Your task to perform on an android device: Search for "macbook air" on ebay.com, select the first entry, add it to the cart, then select checkout. Image 0: 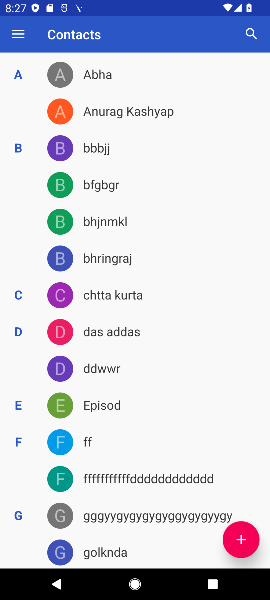
Step 0: press home button
Your task to perform on an android device: Search for "macbook air" on ebay.com, select the first entry, add it to the cart, then select checkout. Image 1: 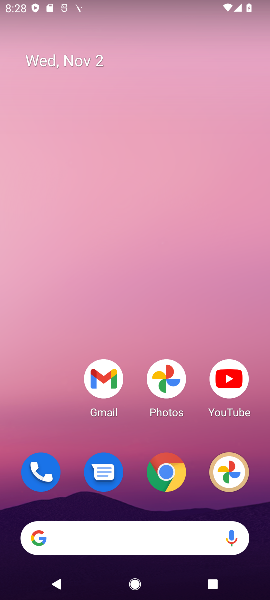
Step 1: click (165, 476)
Your task to perform on an android device: Search for "macbook air" on ebay.com, select the first entry, add it to the cart, then select checkout. Image 2: 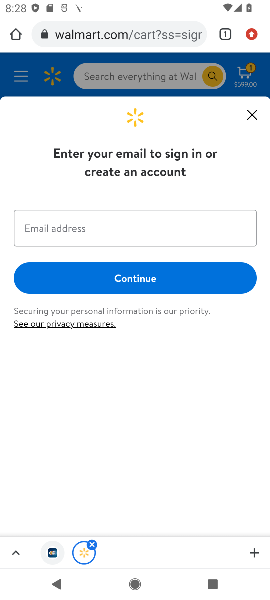
Step 2: click (133, 33)
Your task to perform on an android device: Search for "macbook air" on ebay.com, select the first entry, add it to the cart, then select checkout. Image 3: 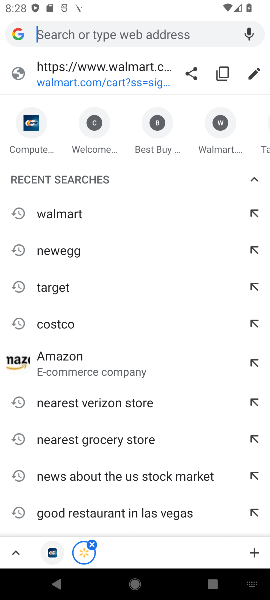
Step 3: type "ebay.com"
Your task to perform on an android device: Search for "macbook air" on ebay.com, select the first entry, add it to the cart, then select checkout. Image 4: 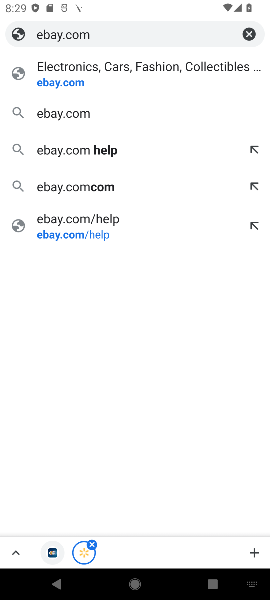
Step 4: click (85, 72)
Your task to perform on an android device: Search for "macbook air" on ebay.com, select the first entry, add it to the cart, then select checkout. Image 5: 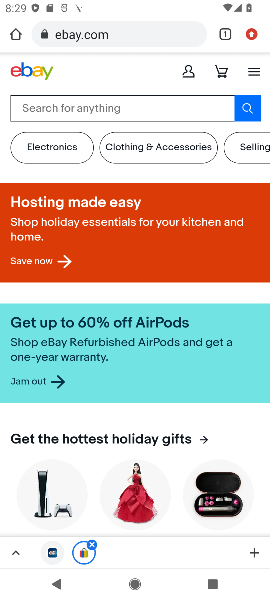
Step 5: click (141, 107)
Your task to perform on an android device: Search for "macbook air" on ebay.com, select the first entry, add it to the cart, then select checkout. Image 6: 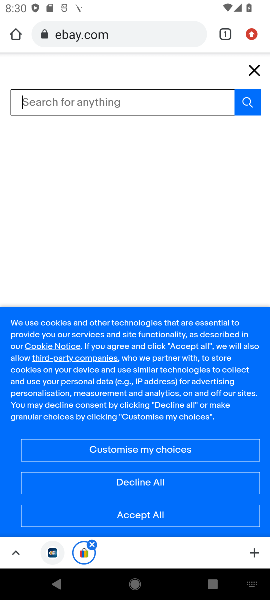
Step 6: type "macbook pro"
Your task to perform on an android device: Search for "macbook air" on ebay.com, select the first entry, add it to the cart, then select checkout. Image 7: 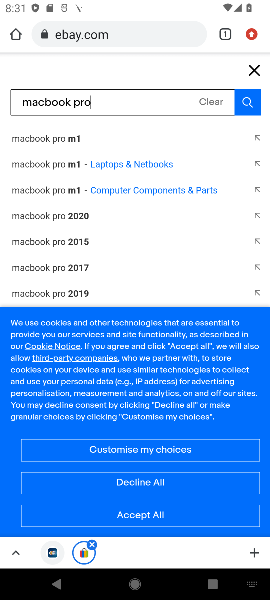
Step 7: click (73, 140)
Your task to perform on an android device: Search for "macbook air" on ebay.com, select the first entry, add it to the cart, then select checkout. Image 8: 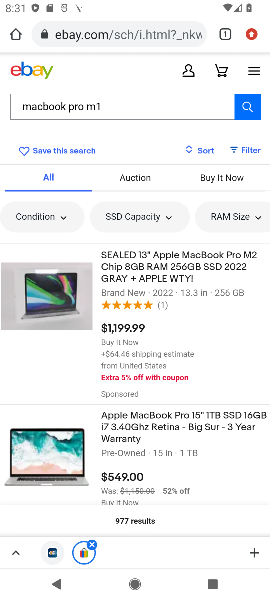
Step 8: click (192, 279)
Your task to perform on an android device: Search for "macbook air" on ebay.com, select the first entry, add it to the cart, then select checkout. Image 9: 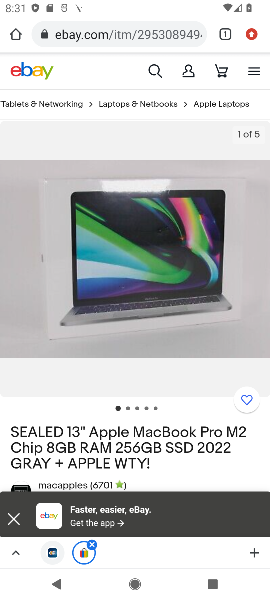
Step 9: drag from (217, 442) to (207, 54)
Your task to perform on an android device: Search for "macbook air" on ebay.com, select the first entry, add it to the cart, then select checkout. Image 10: 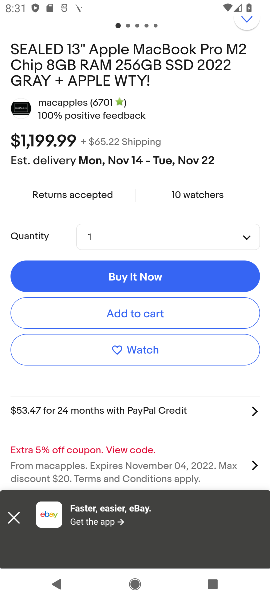
Step 10: click (140, 314)
Your task to perform on an android device: Search for "macbook air" on ebay.com, select the first entry, add it to the cart, then select checkout. Image 11: 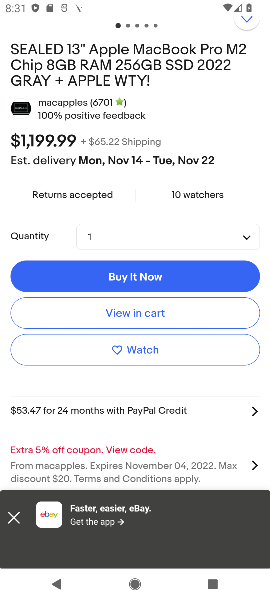
Step 11: click (141, 309)
Your task to perform on an android device: Search for "macbook air" on ebay.com, select the first entry, add it to the cart, then select checkout. Image 12: 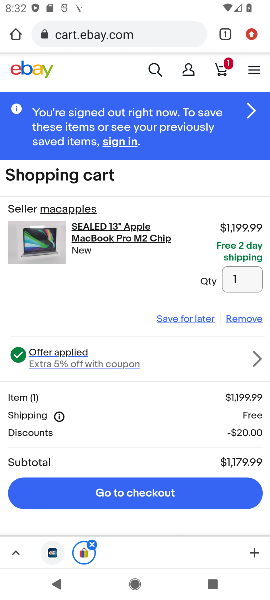
Step 12: click (143, 493)
Your task to perform on an android device: Search for "macbook air" on ebay.com, select the first entry, add it to the cart, then select checkout. Image 13: 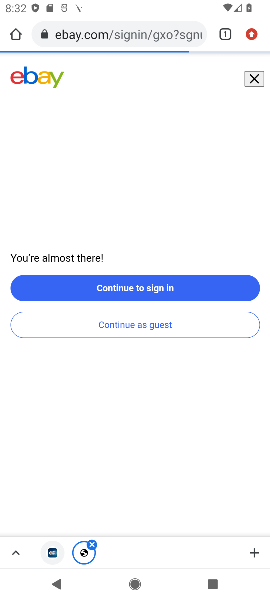
Step 13: task complete